Your task to perform on an android device: Is it going to rain today? Image 0: 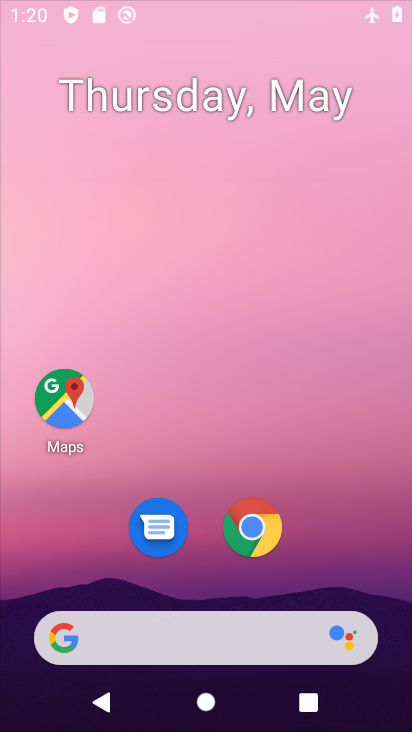
Step 0: click (224, 326)
Your task to perform on an android device: Is it going to rain today? Image 1: 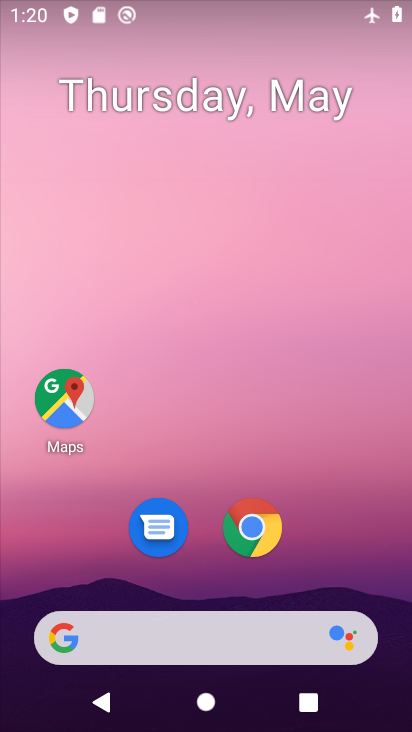
Step 1: drag from (217, 559) to (217, 187)
Your task to perform on an android device: Is it going to rain today? Image 2: 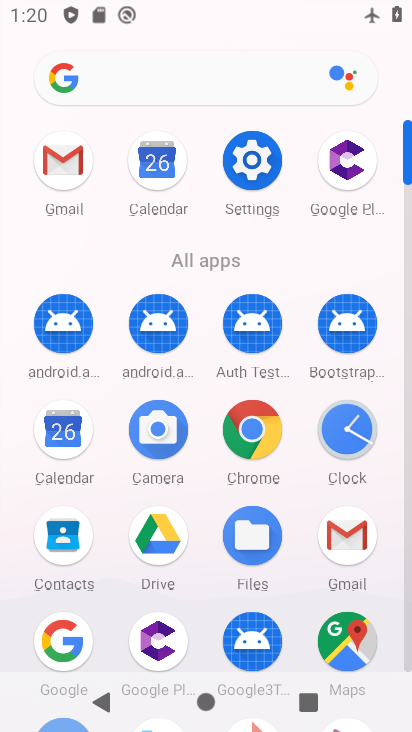
Step 2: click (131, 64)
Your task to perform on an android device: Is it going to rain today? Image 3: 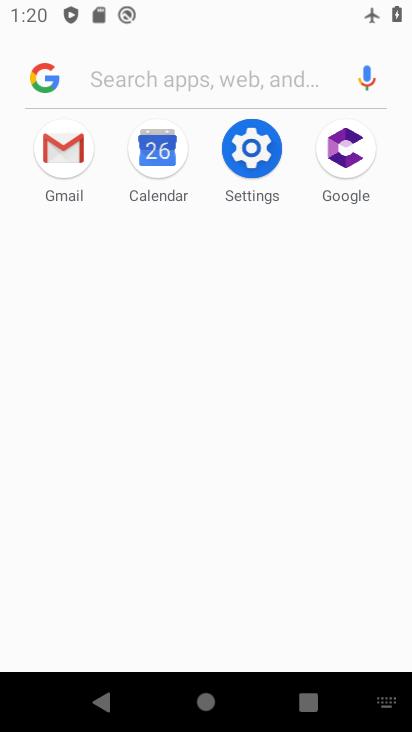
Step 3: type "rain today?"
Your task to perform on an android device: Is it going to rain today? Image 4: 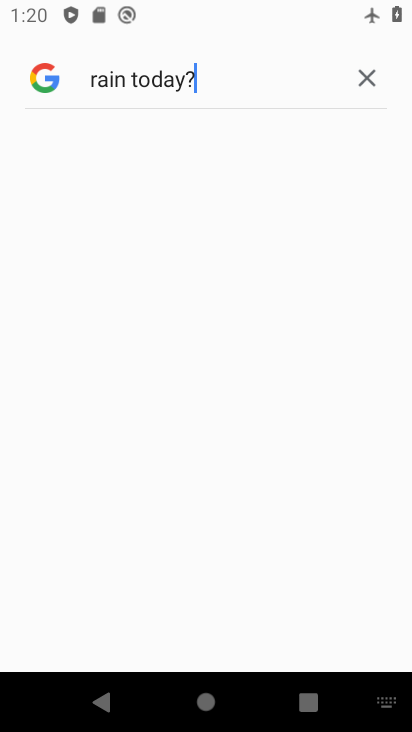
Step 4: type ""
Your task to perform on an android device: Is it going to rain today? Image 5: 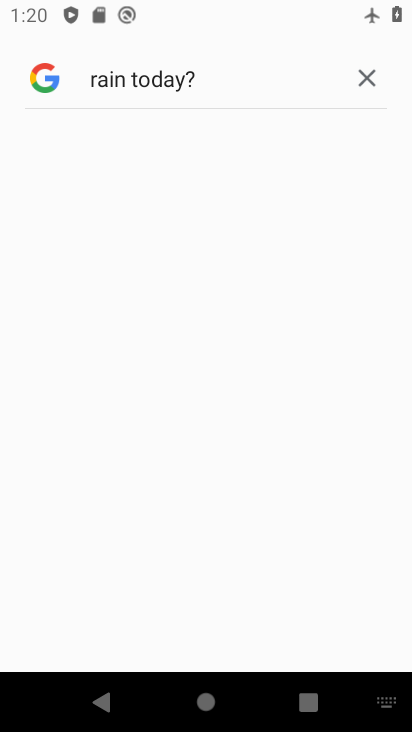
Step 5: task complete